Your task to perform on an android device: Search for Mexican restaurants on Maps Image 0: 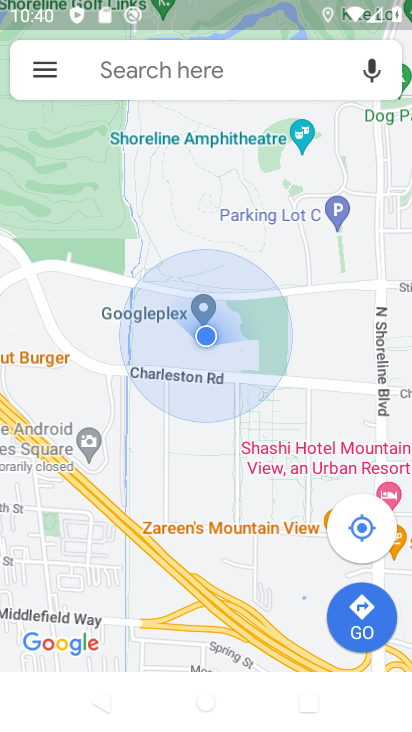
Step 0: click (183, 80)
Your task to perform on an android device: Search for Mexican restaurants on Maps Image 1: 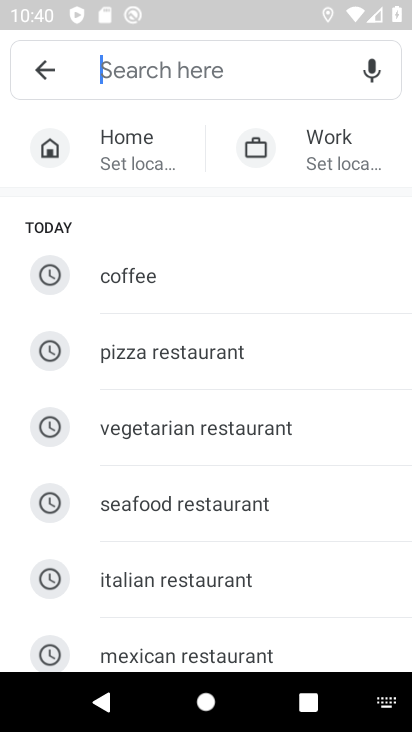
Step 1: click (148, 655)
Your task to perform on an android device: Search for Mexican restaurants on Maps Image 2: 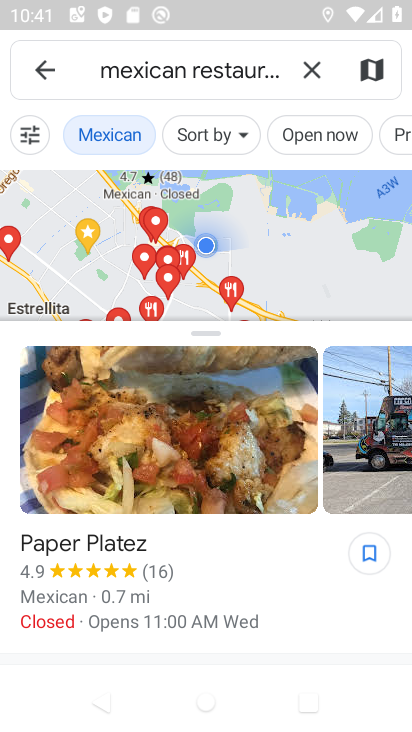
Step 2: task complete